Your task to perform on an android device: check out phone information Image 0: 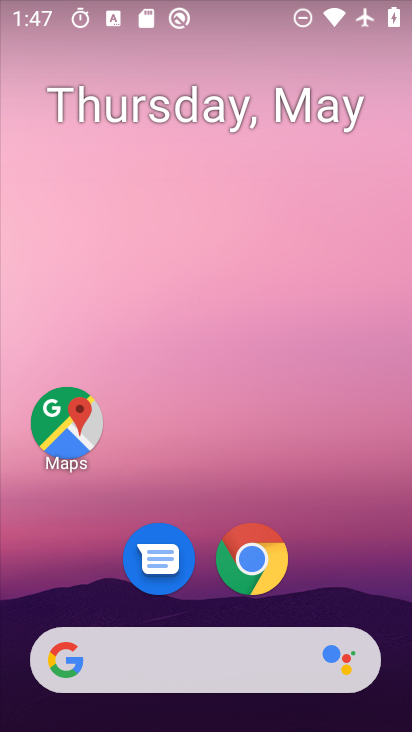
Step 0: drag from (303, 459) to (316, 0)
Your task to perform on an android device: check out phone information Image 1: 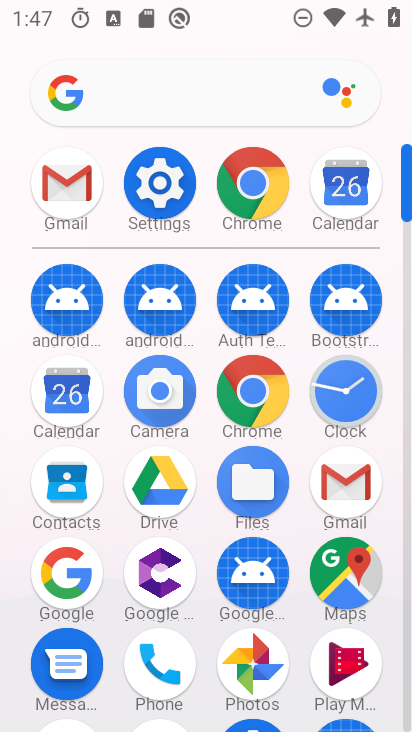
Step 1: click (158, 178)
Your task to perform on an android device: check out phone information Image 2: 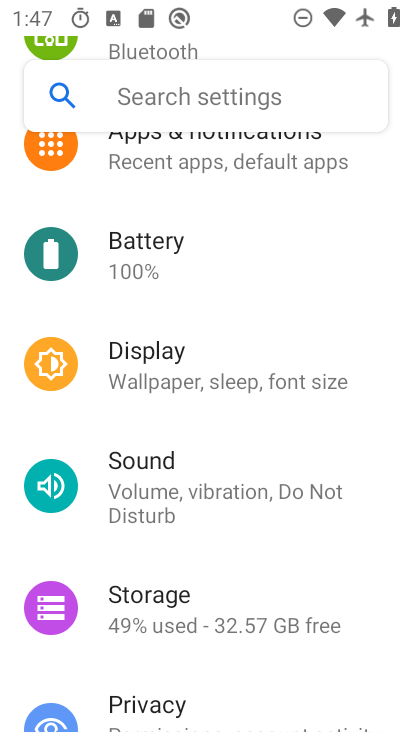
Step 2: drag from (206, 407) to (265, 156)
Your task to perform on an android device: check out phone information Image 3: 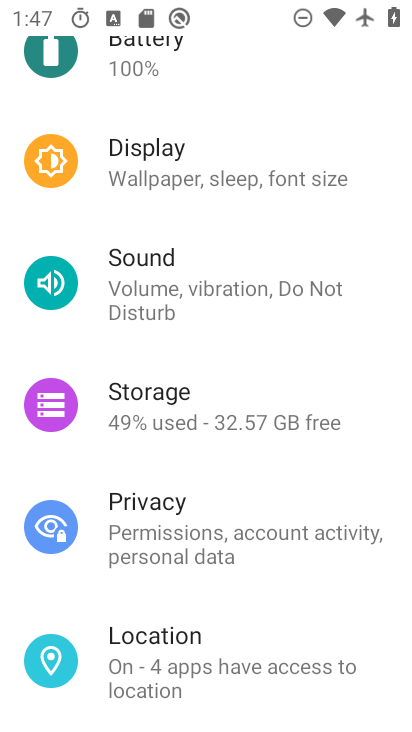
Step 3: drag from (176, 597) to (233, 38)
Your task to perform on an android device: check out phone information Image 4: 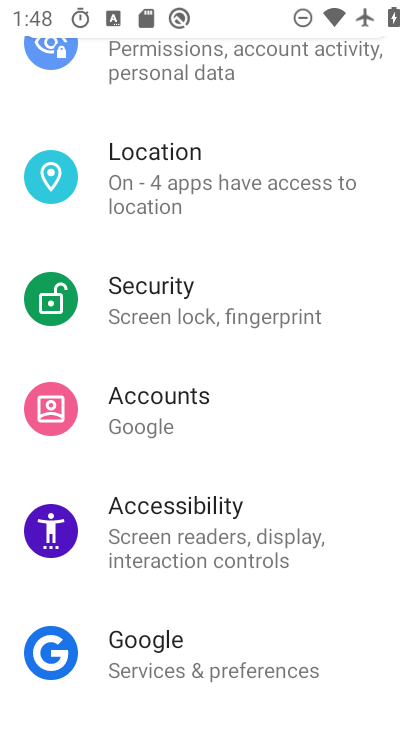
Step 4: drag from (174, 532) to (291, 14)
Your task to perform on an android device: check out phone information Image 5: 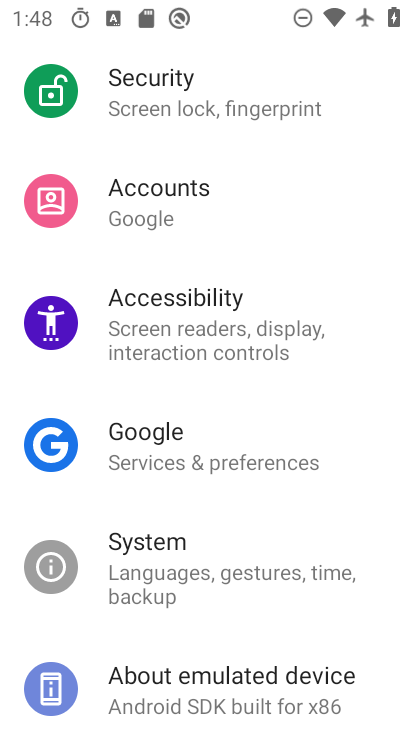
Step 5: drag from (266, 351) to (329, 38)
Your task to perform on an android device: check out phone information Image 6: 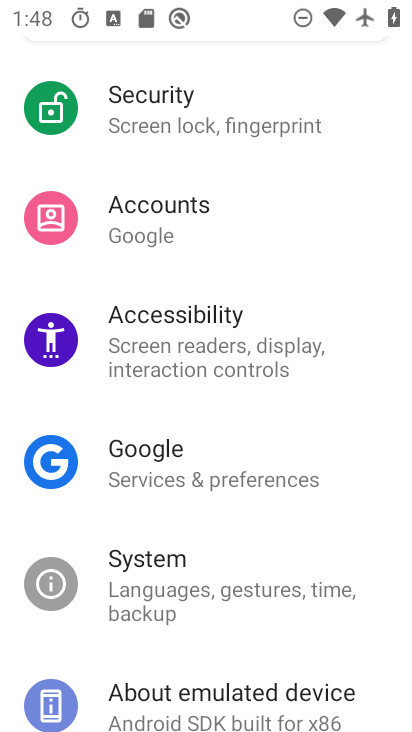
Step 6: drag from (237, 685) to (298, 317)
Your task to perform on an android device: check out phone information Image 7: 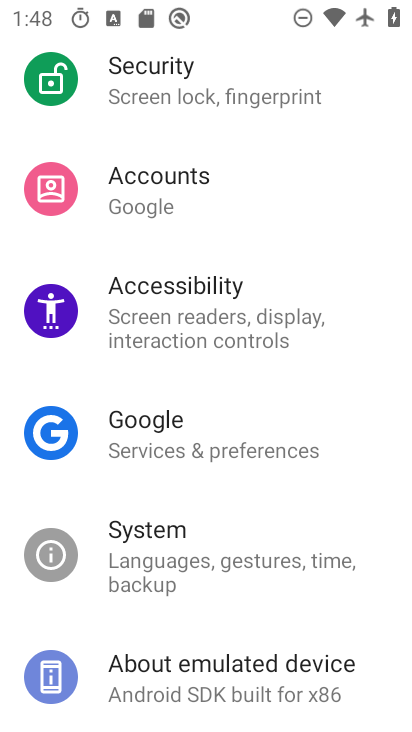
Step 7: click (207, 658)
Your task to perform on an android device: check out phone information Image 8: 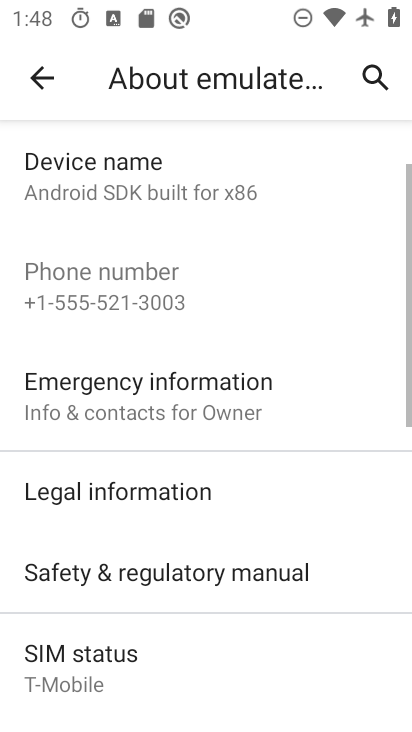
Step 8: task complete